Your task to perform on an android device: Open Android settings Image 0: 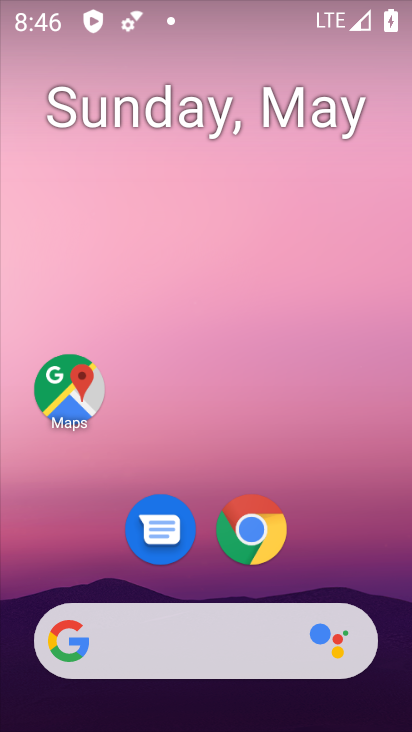
Step 0: drag from (211, 584) to (156, 61)
Your task to perform on an android device: Open Android settings Image 1: 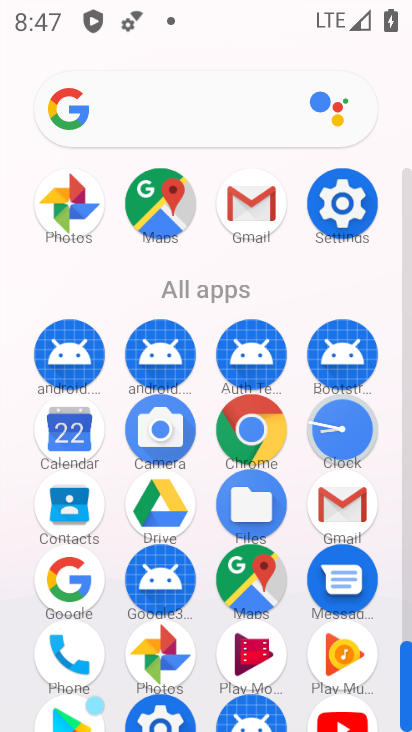
Step 1: click (337, 203)
Your task to perform on an android device: Open Android settings Image 2: 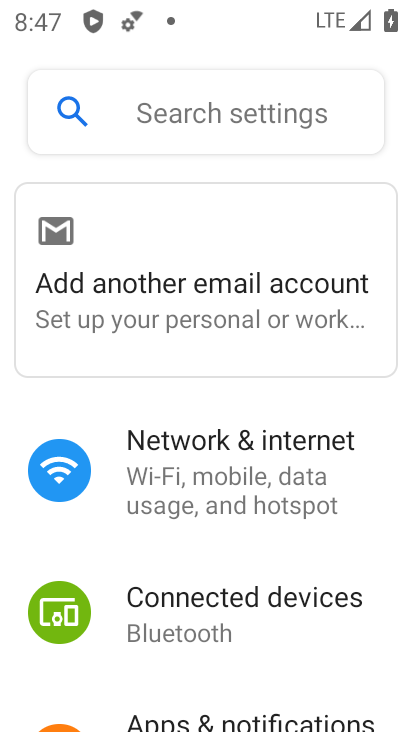
Step 2: drag from (217, 661) to (183, 79)
Your task to perform on an android device: Open Android settings Image 3: 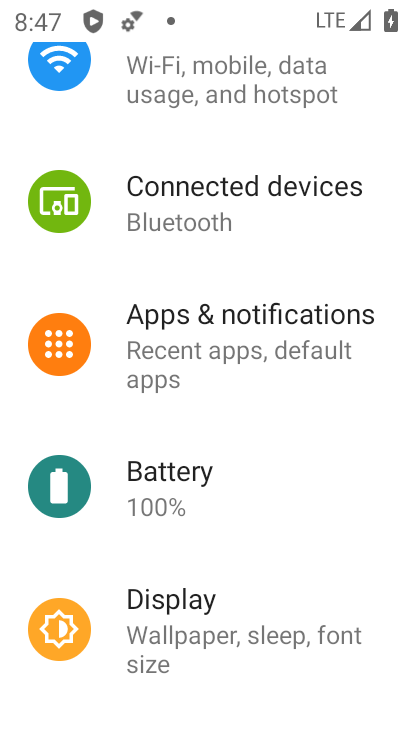
Step 3: drag from (198, 625) to (199, 99)
Your task to perform on an android device: Open Android settings Image 4: 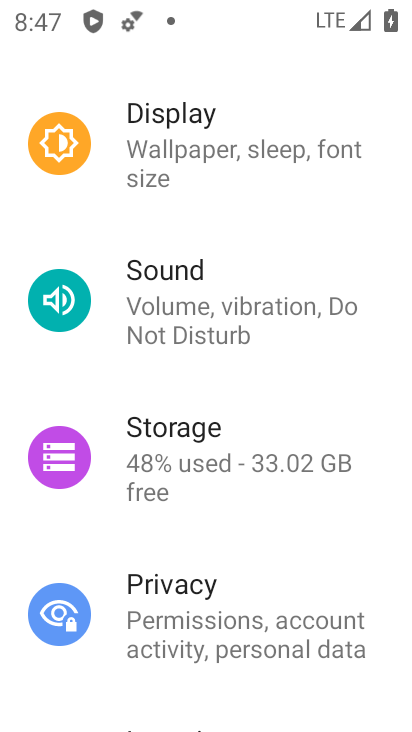
Step 4: drag from (239, 464) to (188, 82)
Your task to perform on an android device: Open Android settings Image 5: 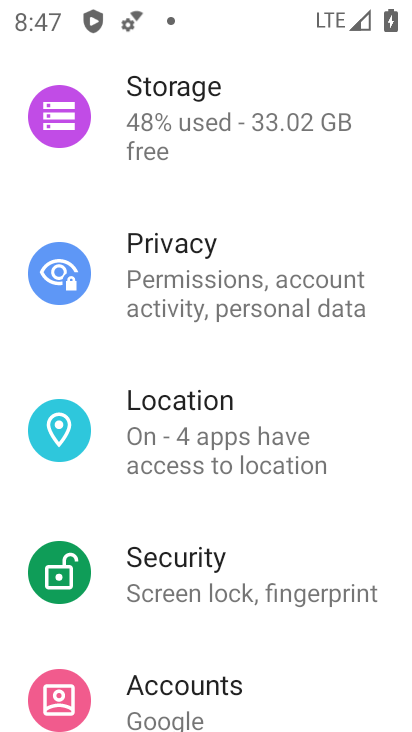
Step 5: drag from (190, 580) to (173, 178)
Your task to perform on an android device: Open Android settings Image 6: 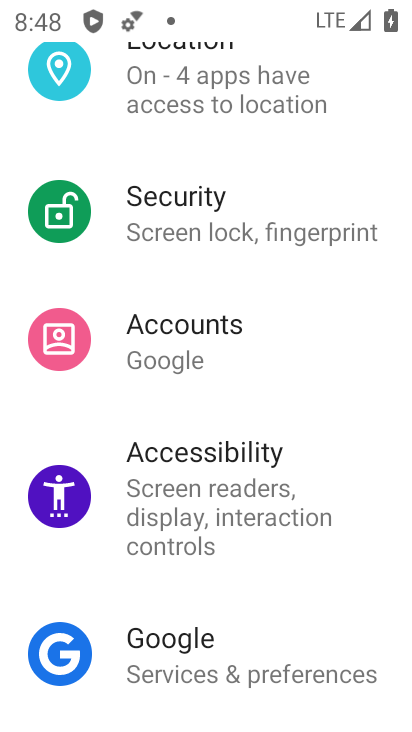
Step 6: drag from (194, 613) to (176, 207)
Your task to perform on an android device: Open Android settings Image 7: 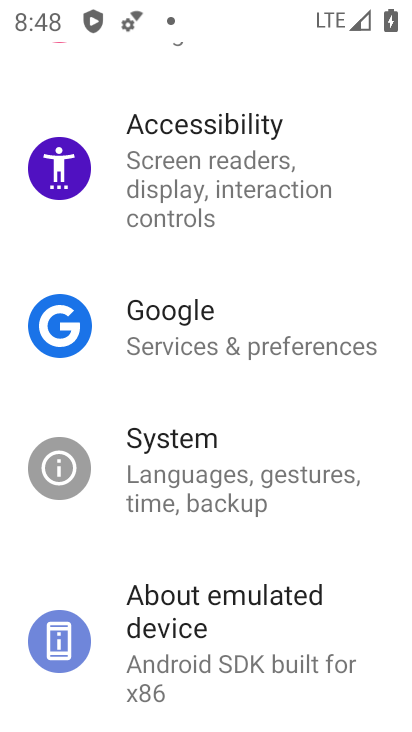
Step 7: click (205, 504)
Your task to perform on an android device: Open Android settings Image 8: 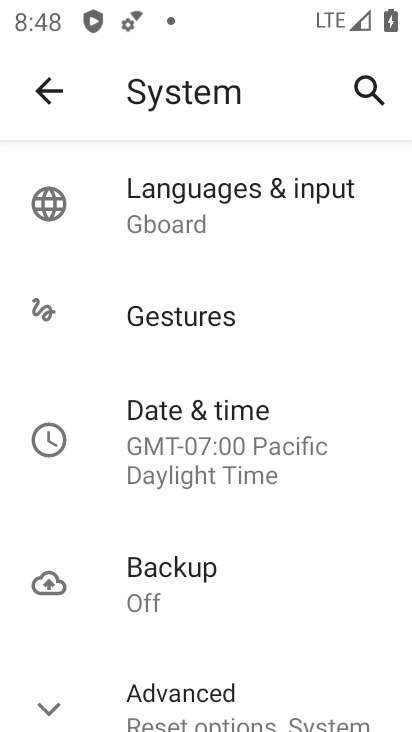
Step 8: task complete